Your task to perform on an android device: set default search engine in the chrome app Image 0: 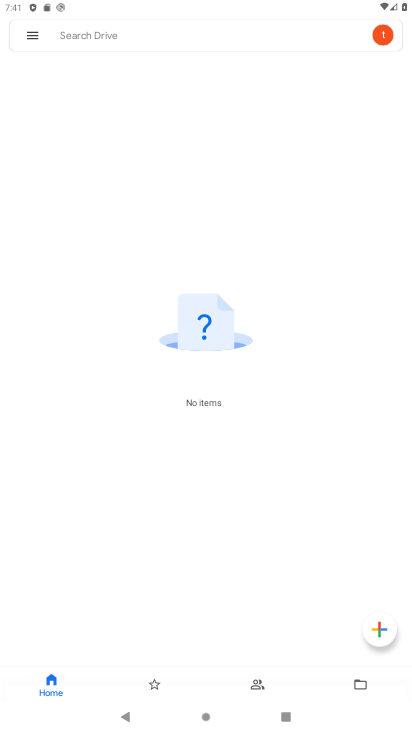
Step 0: press home button
Your task to perform on an android device: set default search engine in the chrome app Image 1: 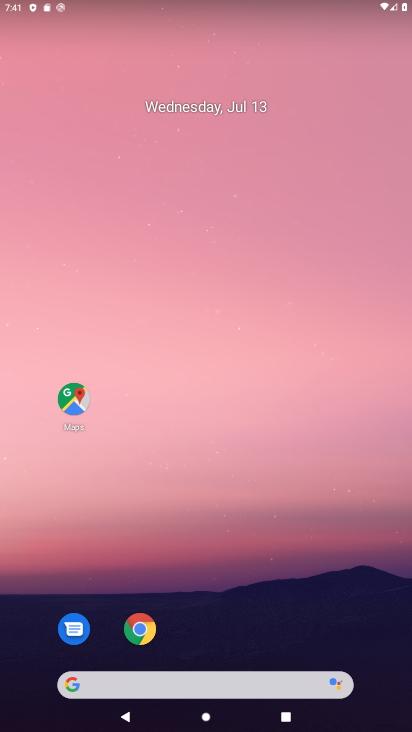
Step 1: click (129, 622)
Your task to perform on an android device: set default search engine in the chrome app Image 2: 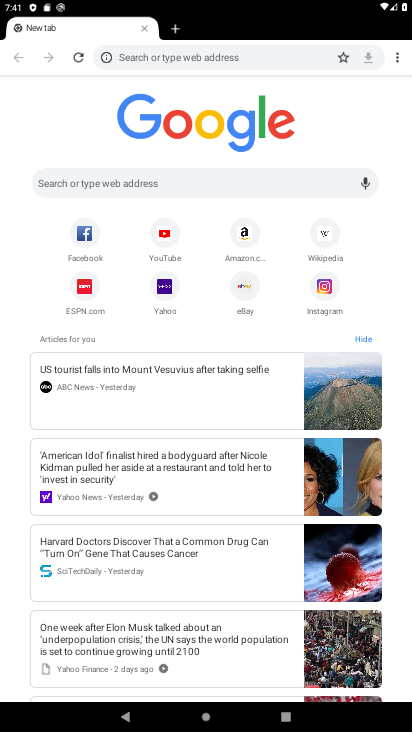
Step 2: click (399, 55)
Your task to perform on an android device: set default search engine in the chrome app Image 3: 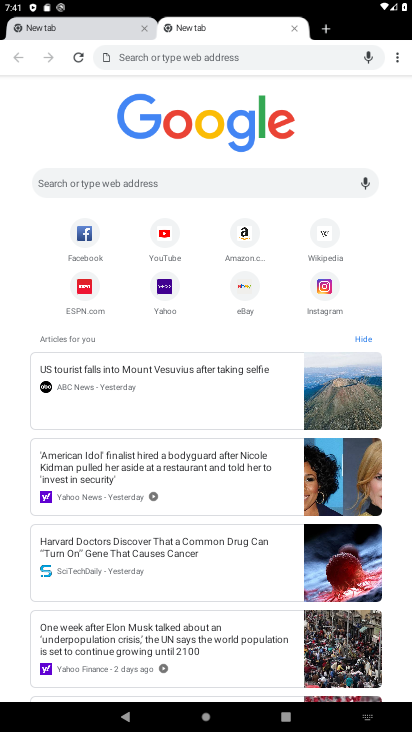
Step 3: click (394, 54)
Your task to perform on an android device: set default search engine in the chrome app Image 4: 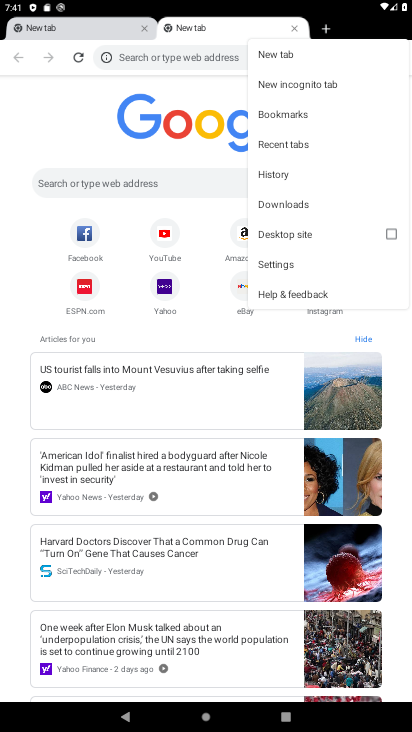
Step 4: click (284, 255)
Your task to perform on an android device: set default search engine in the chrome app Image 5: 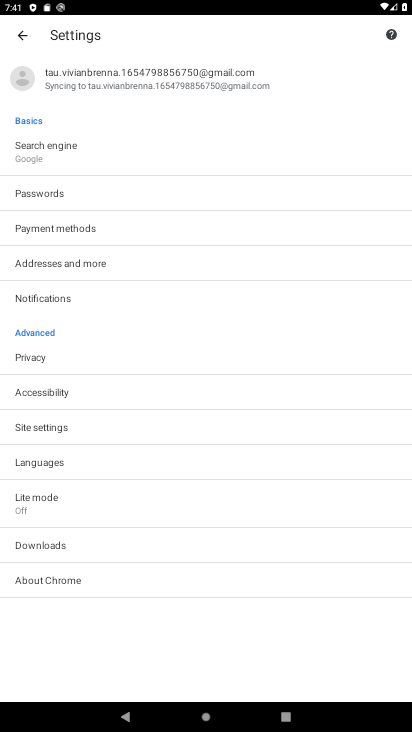
Step 5: click (99, 159)
Your task to perform on an android device: set default search engine in the chrome app Image 6: 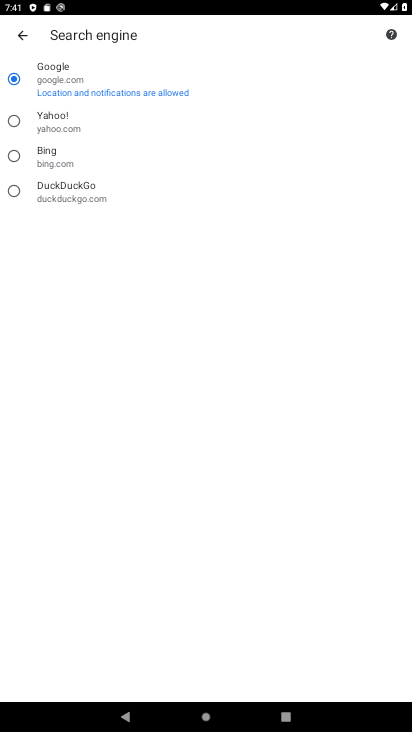
Step 6: task complete